Your task to perform on an android device: Turn off the flashlight Image 0: 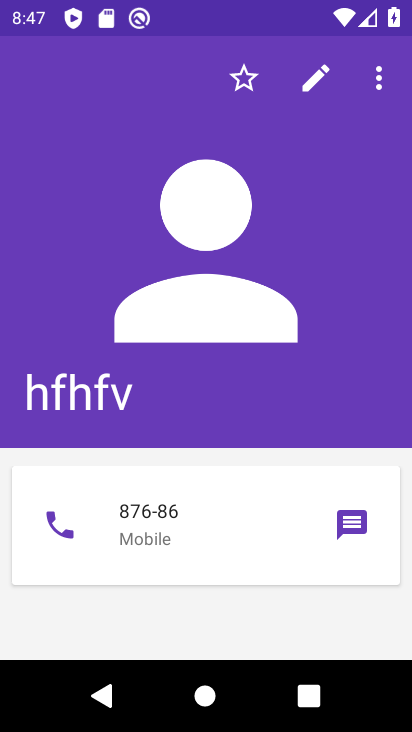
Step 0: press back button
Your task to perform on an android device: Turn off the flashlight Image 1: 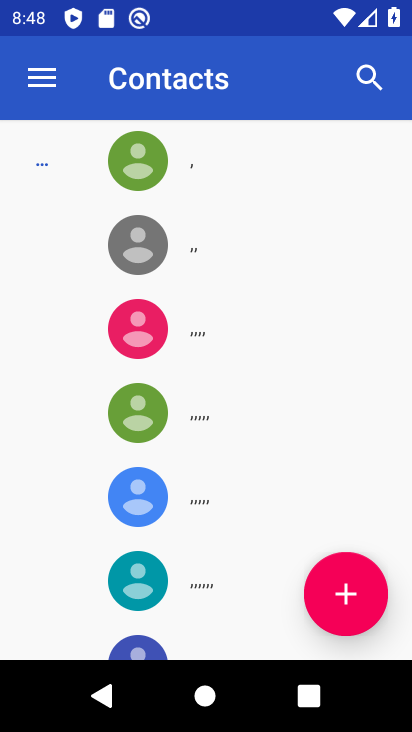
Step 1: press back button
Your task to perform on an android device: Turn off the flashlight Image 2: 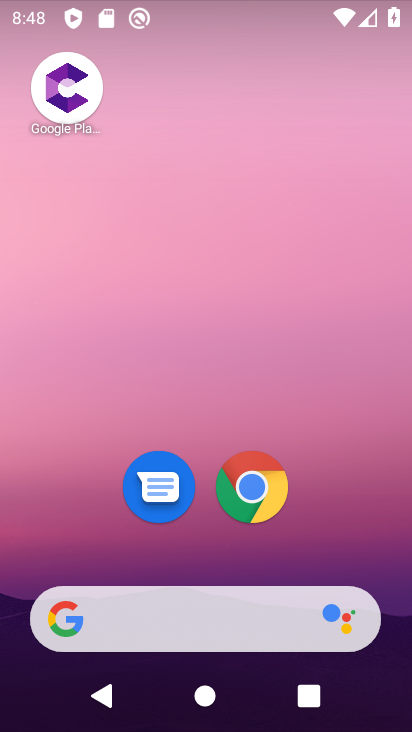
Step 2: drag from (256, 335) to (303, 10)
Your task to perform on an android device: Turn off the flashlight Image 3: 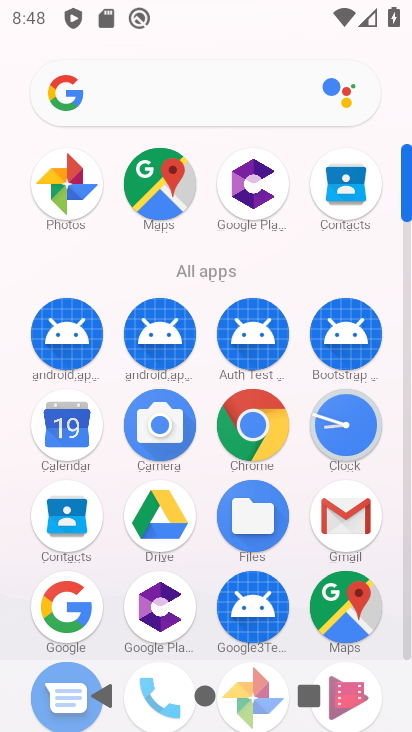
Step 3: drag from (214, 541) to (291, 51)
Your task to perform on an android device: Turn off the flashlight Image 4: 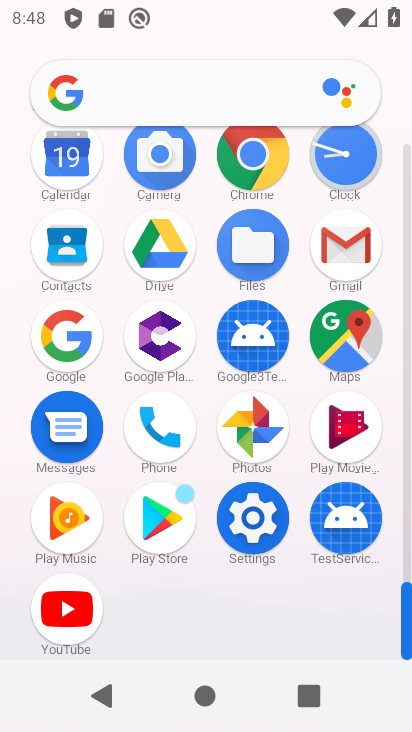
Step 4: click (245, 531)
Your task to perform on an android device: Turn off the flashlight Image 5: 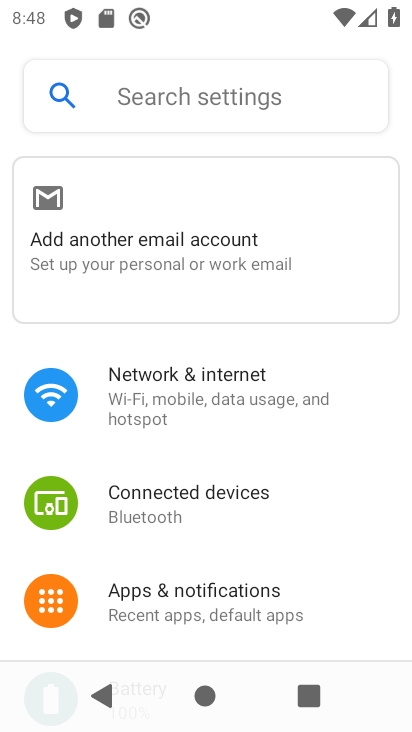
Step 5: click (141, 96)
Your task to perform on an android device: Turn off the flashlight Image 6: 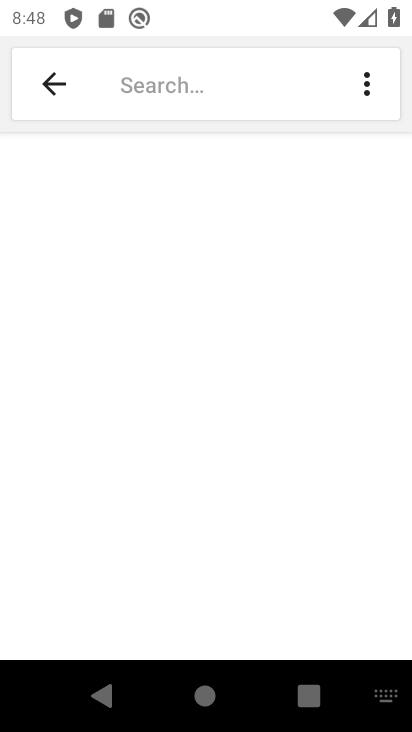
Step 6: click (160, 79)
Your task to perform on an android device: Turn off the flashlight Image 7: 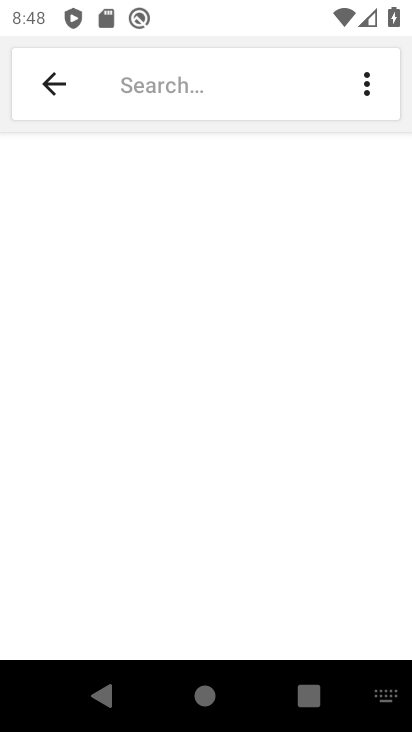
Step 7: type "flashlight"
Your task to perform on an android device: Turn off the flashlight Image 8: 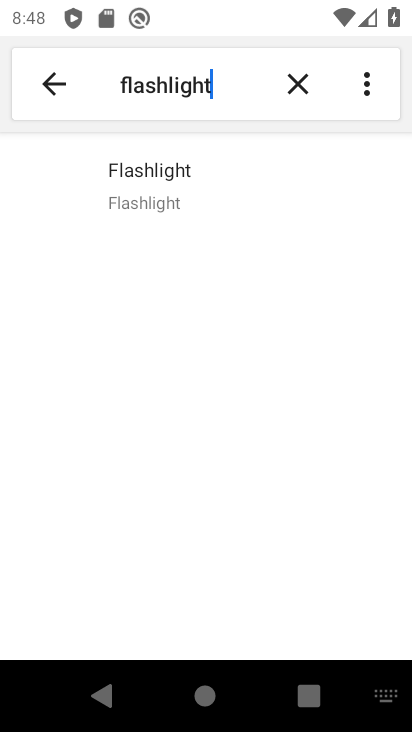
Step 8: click (128, 178)
Your task to perform on an android device: Turn off the flashlight Image 9: 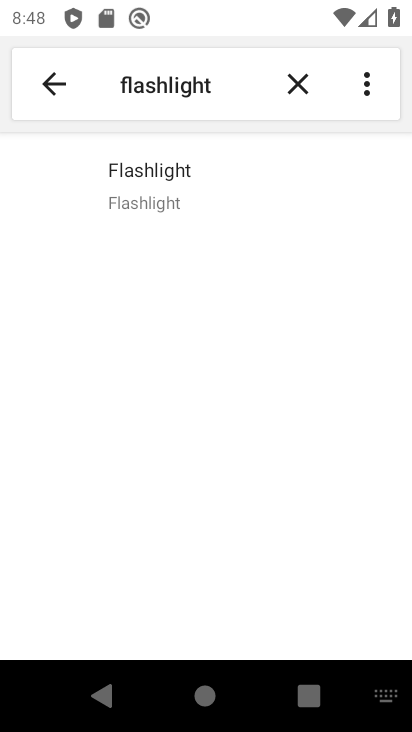
Step 9: task complete